Your task to perform on an android device: turn off location Image 0: 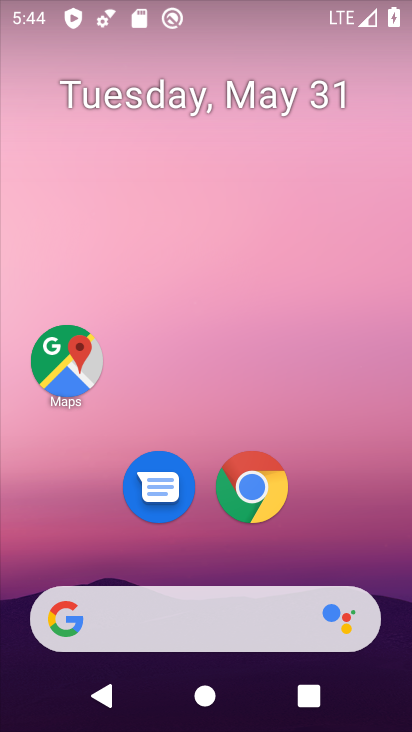
Step 0: drag from (337, 535) to (247, 75)
Your task to perform on an android device: turn off location Image 1: 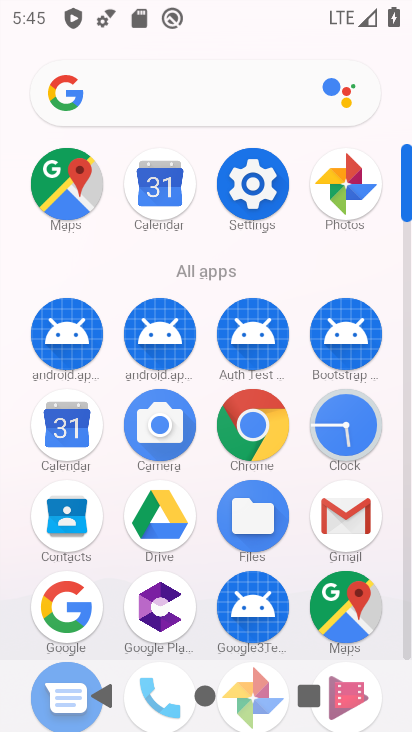
Step 1: click (262, 195)
Your task to perform on an android device: turn off location Image 2: 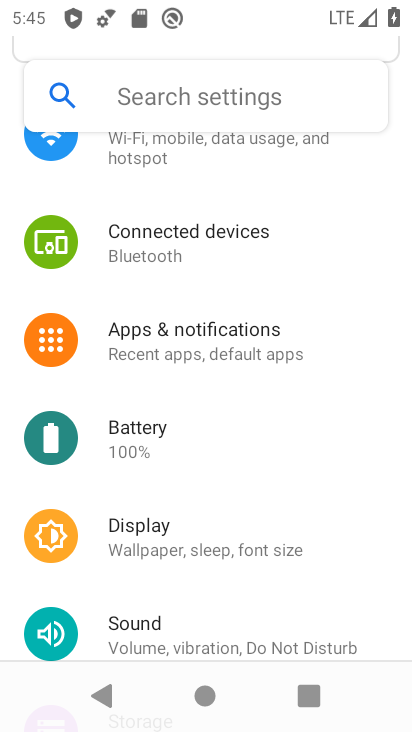
Step 2: drag from (223, 572) to (200, 297)
Your task to perform on an android device: turn off location Image 3: 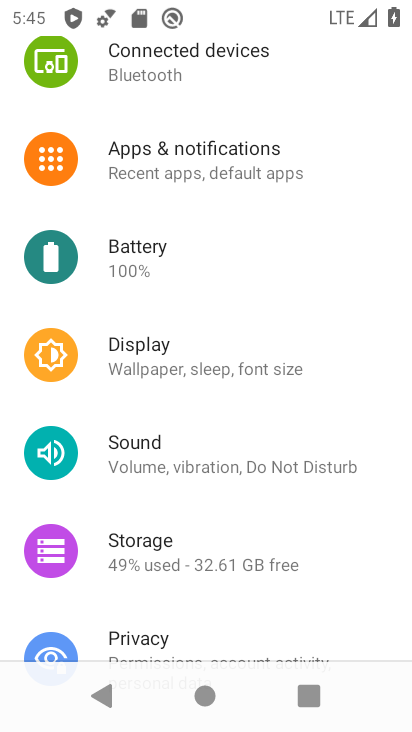
Step 3: drag from (188, 608) to (162, 256)
Your task to perform on an android device: turn off location Image 4: 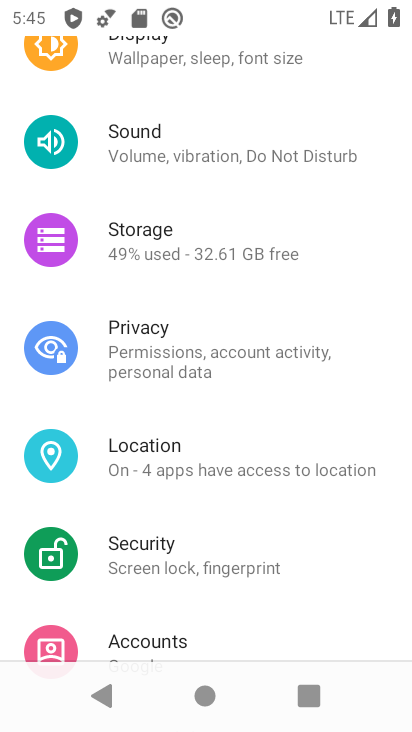
Step 4: click (141, 439)
Your task to perform on an android device: turn off location Image 5: 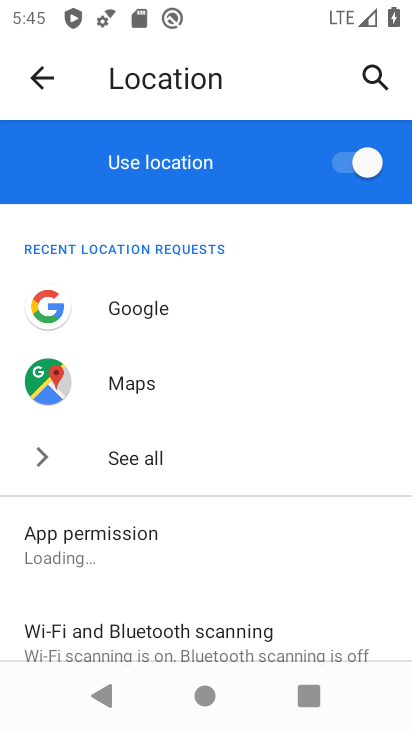
Step 5: click (339, 167)
Your task to perform on an android device: turn off location Image 6: 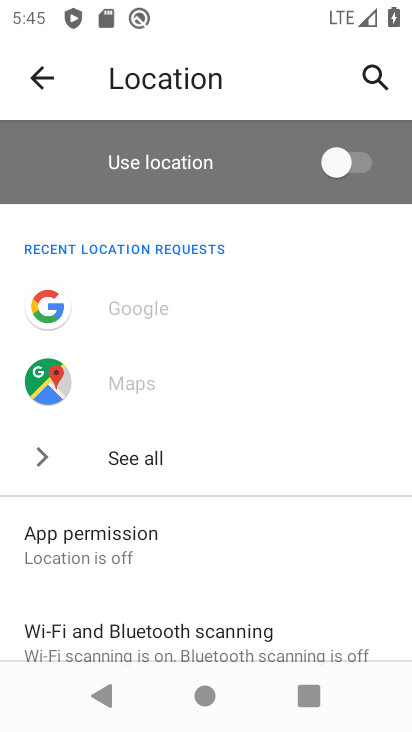
Step 6: task complete